Your task to perform on an android device: Show me popular videos on Youtube Image 0: 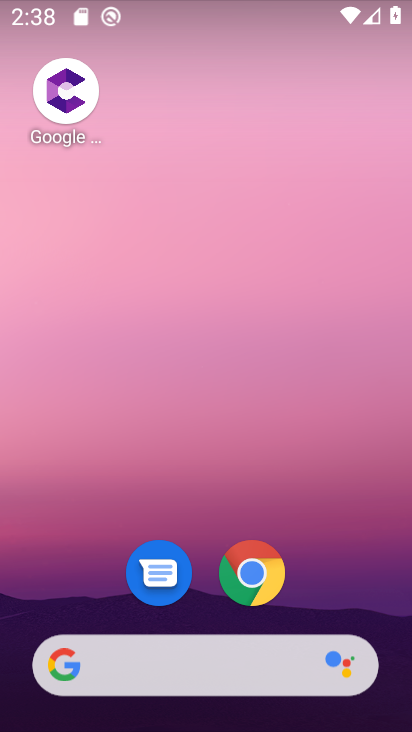
Step 0: drag from (245, 463) to (246, 102)
Your task to perform on an android device: Show me popular videos on Youtube Image 1: 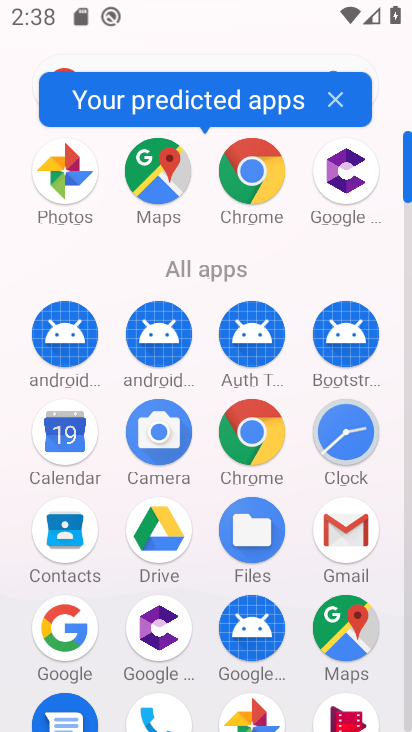
Step 1: drag from (192, 682) to (207, 280)
Your task to perform on an android device: Show me popular videos on Youtube Image 2: 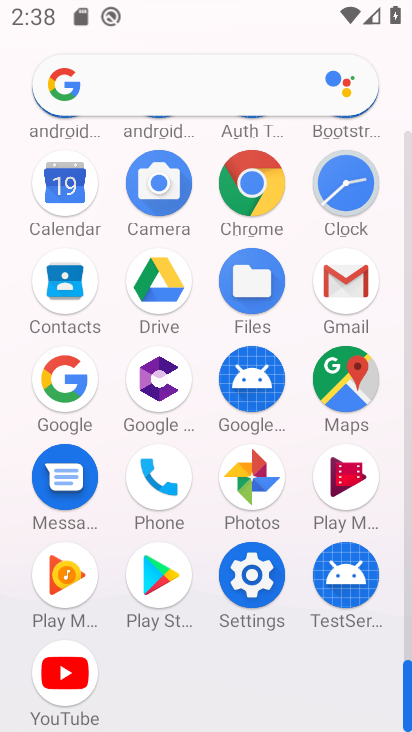
Step 2: click (61, 665)
Your task to perform on an android device: Show me popular videos on Youtube Image 3: 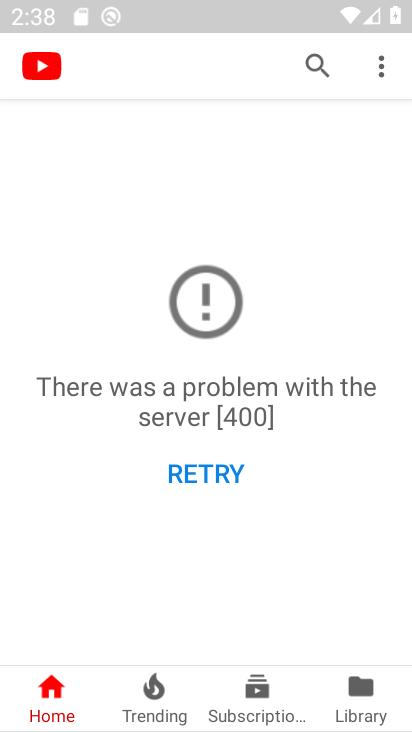
Step 3: click (136, 689)
Your task to perform on an android device: Show me popular videos on Youtube Image 4: 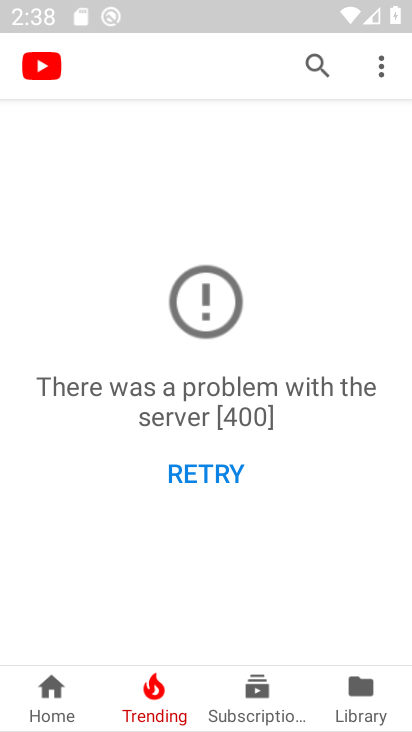
Step 4: click (214, 465)
Your task to perform on an android device: Show me popular videos on Youtube Image 5: 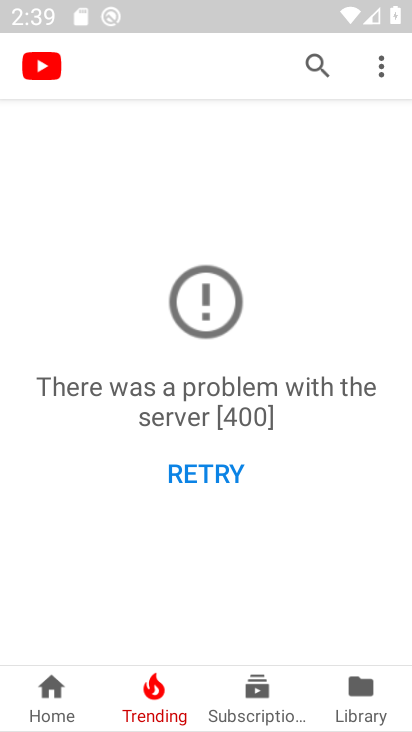
Step 5: task complete